Your task to perform on an android device: Open Google Image 0: 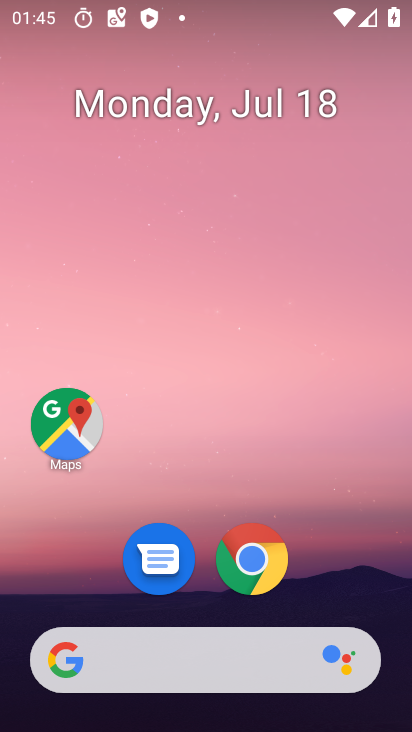
Step 0: drag from (57, 484) to (162, 34)
Your task to perform on an android device: Open Google Image 1: 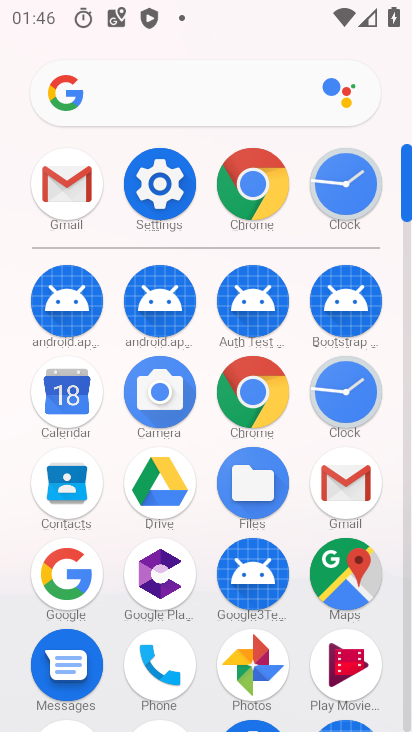
Step 1: click (61, 585)
Your task to perform on an android device: Open Google Image 2: 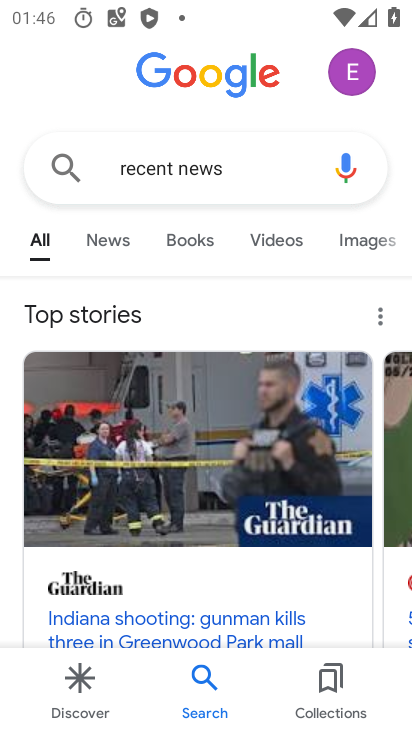
Step 2: task complete